Your task to perform on an android device: Open a new Chrome tab Image 0: 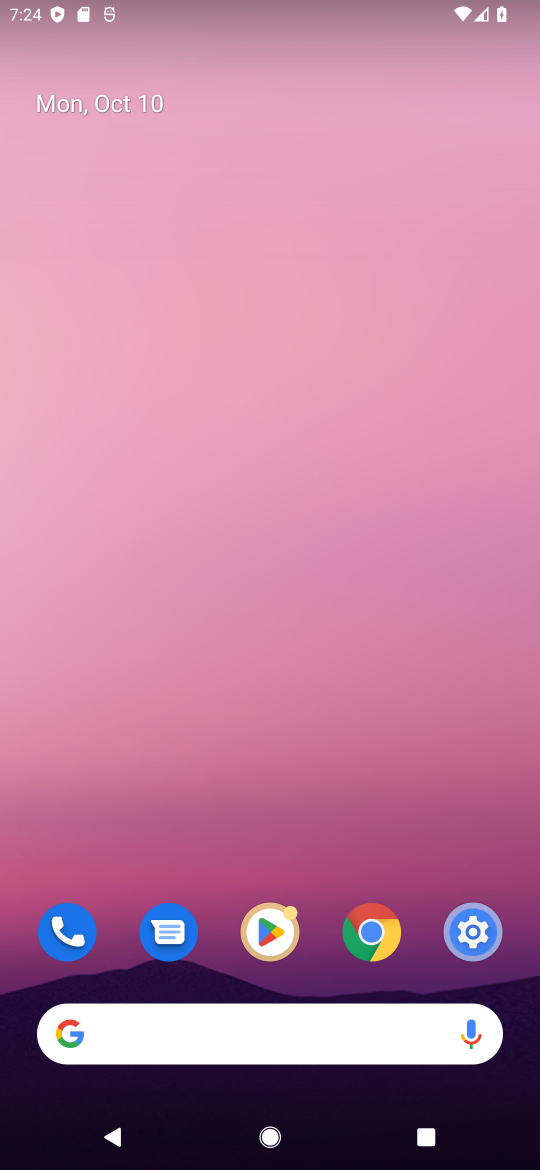
Step 0: drag from (323, 975) to (225, 1)
Your task to perform on an android device: Open a new Chrome tab Image 1: 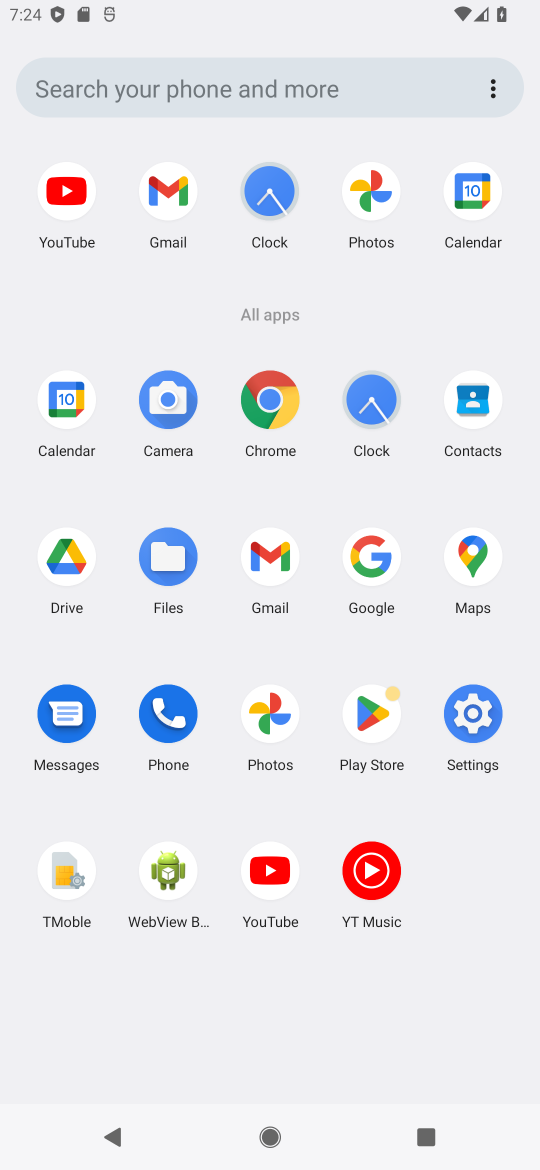
Step 1: click (281, 398)
Your task to perform on an android device: Open a new Chrome tab Image 2: 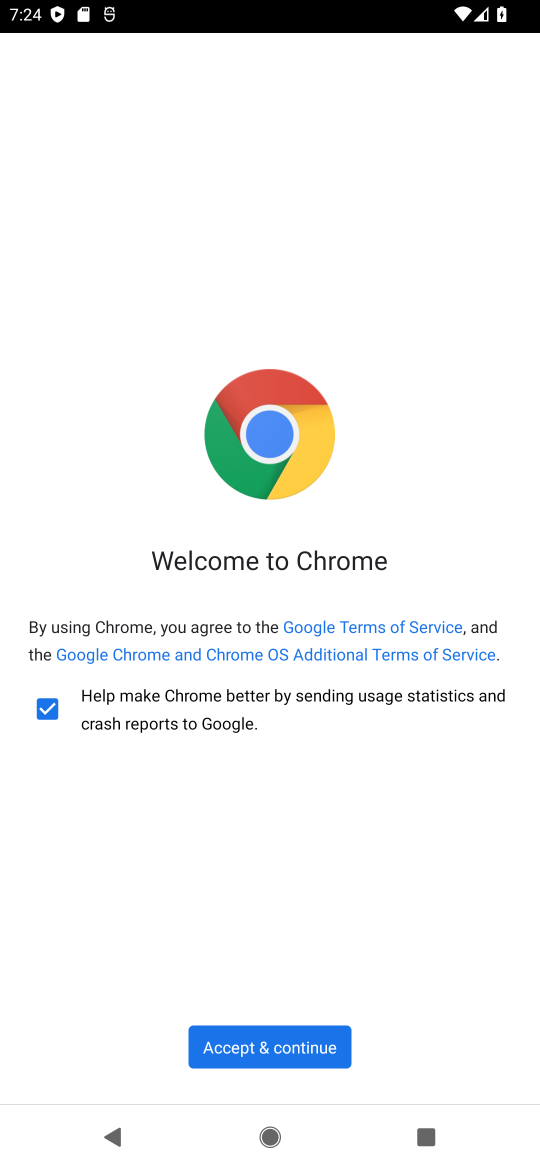
Step 2: click (300, 1044)
Your task to perform on an android device: Open a new Chrome tab Image 3: 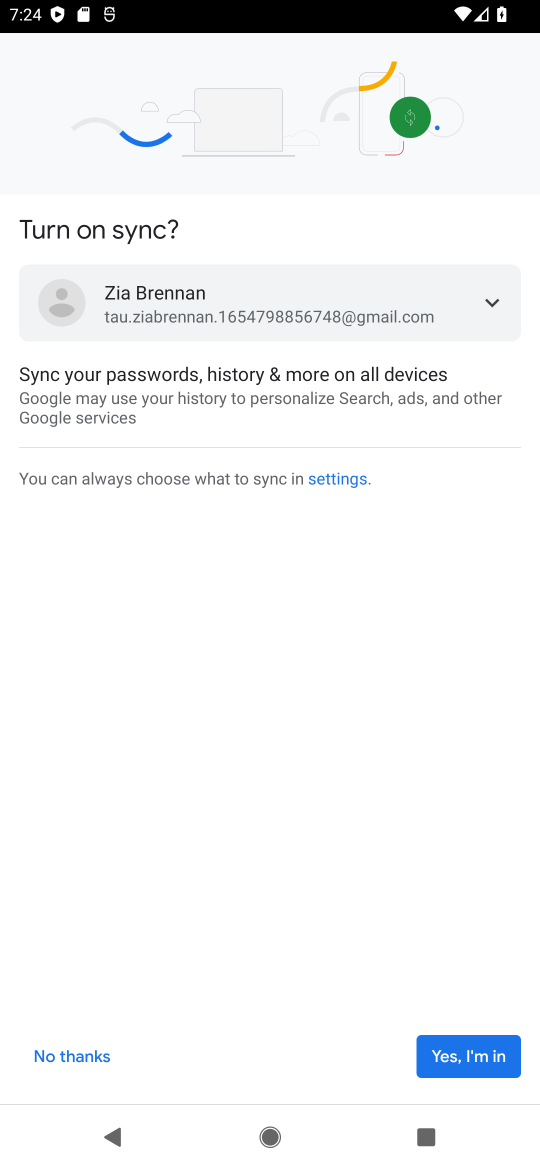
Step 3: click (429, 1049)
Your task to perform on an android device: Open a new Chrome tab Image 4: 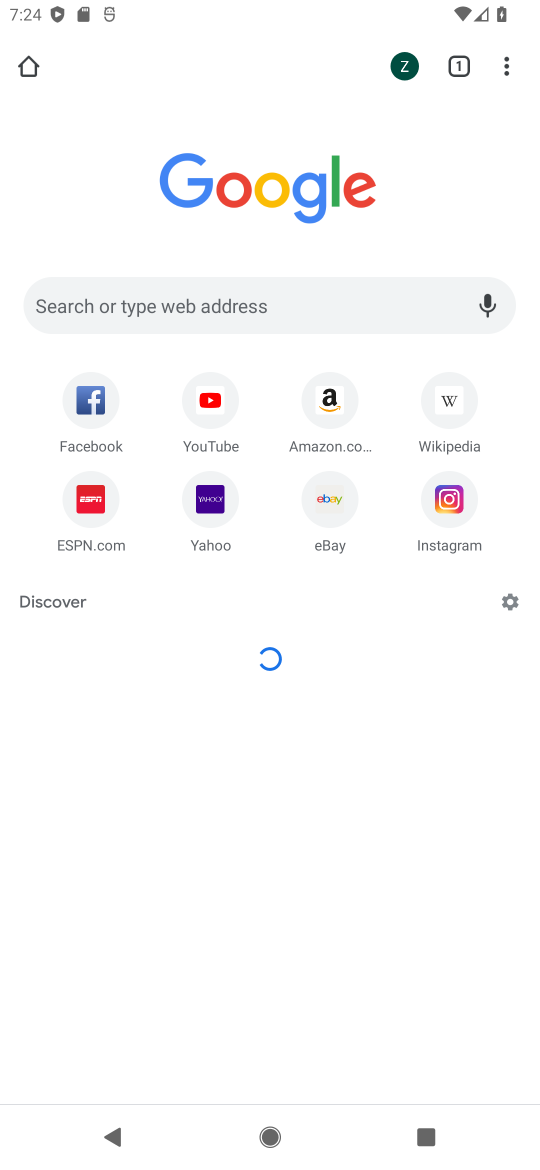
Step 4: task complete